Your task to perform on an android device: Open my contact list Image 0: 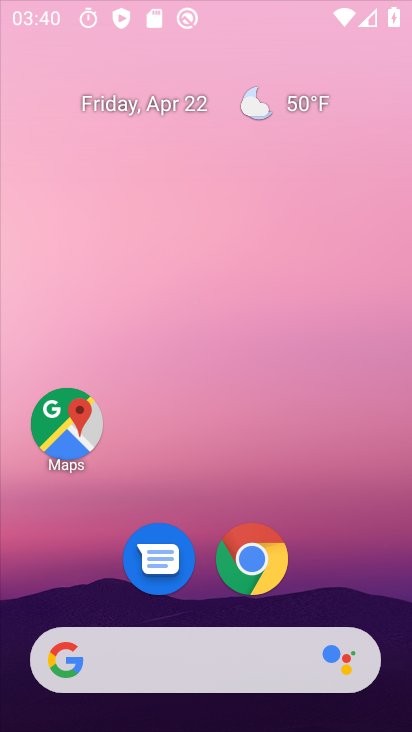
Step 0: click (301, 100)
Your task to perform on an android device: Open my contact list Image 1: 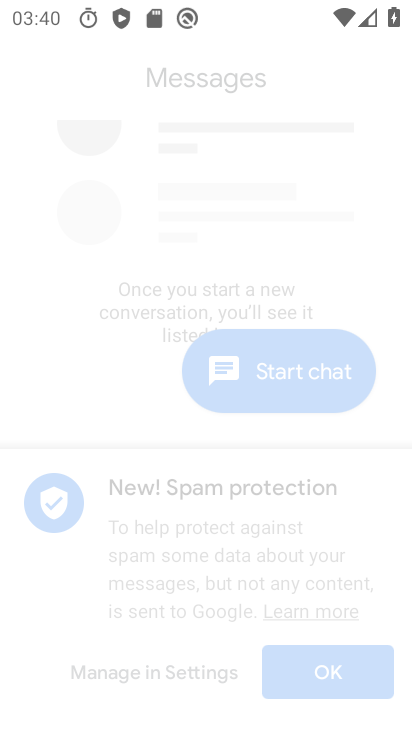
Step 1: drag from (202, 569) to (337, 97)
Your task to perform on an android device: Open my contact list Image 2: 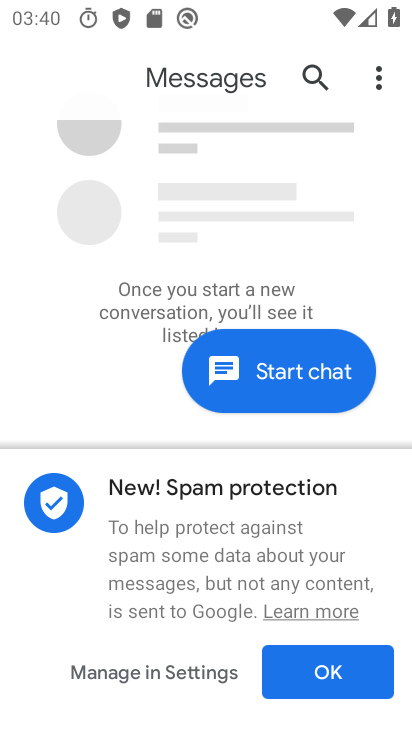
Step 2: press back button
Your task to perform on an android device: Open my contact list Image 3: 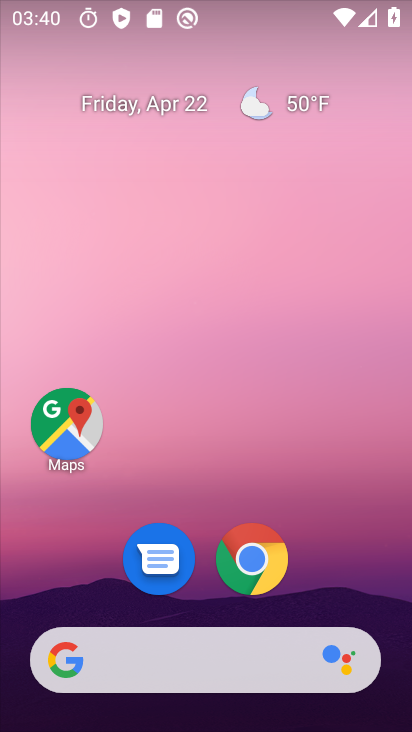
Step 3: drag from (160, 621) to (341, 126)
Your task to perform on an android device: Open my contact list Image 4: 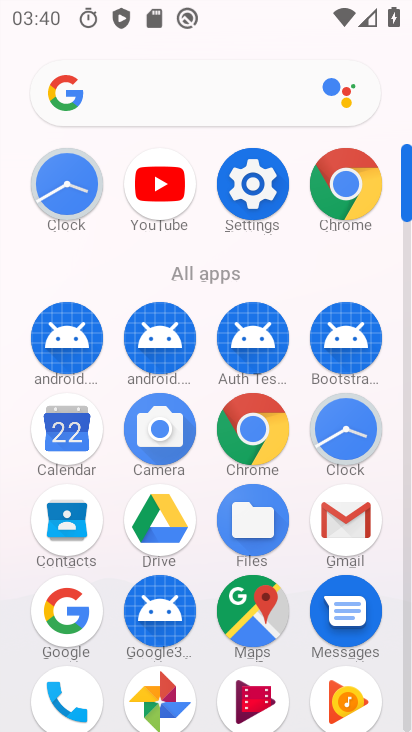
Step 4: click (55, 524)
Your task to perform on an android device: Open my contact list Image 5: 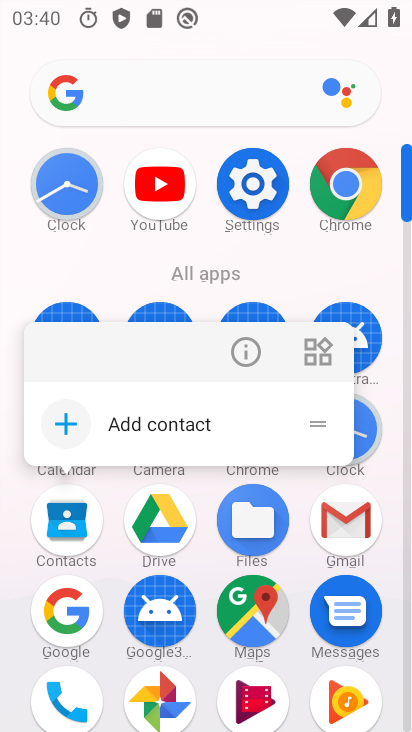
Step 5: click (62, 533)
Your task to perform on an android device: Open my contact list Image 6: 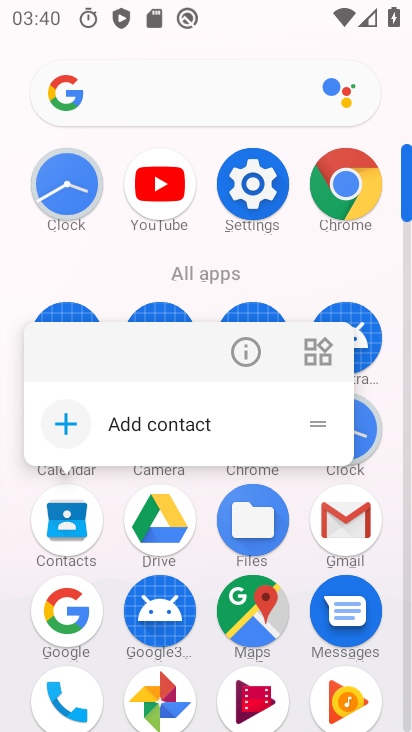
Step 6: click (71, 524)
Your task to perform on an android device: Open my contact list Image 7: 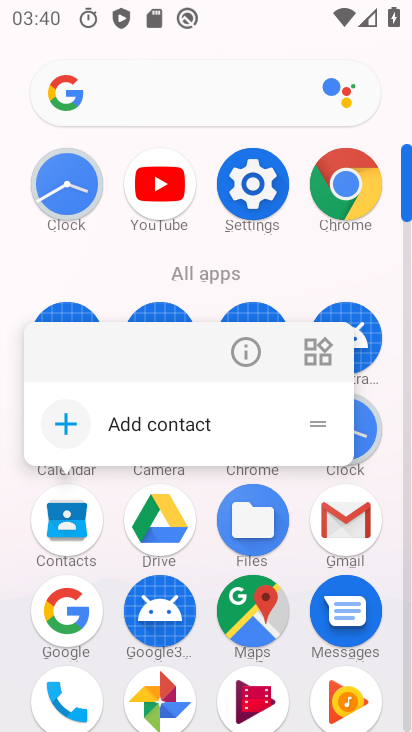
Step 7: click (74, 517)
Your task to perform on an android device: Open my contact list Image 8: 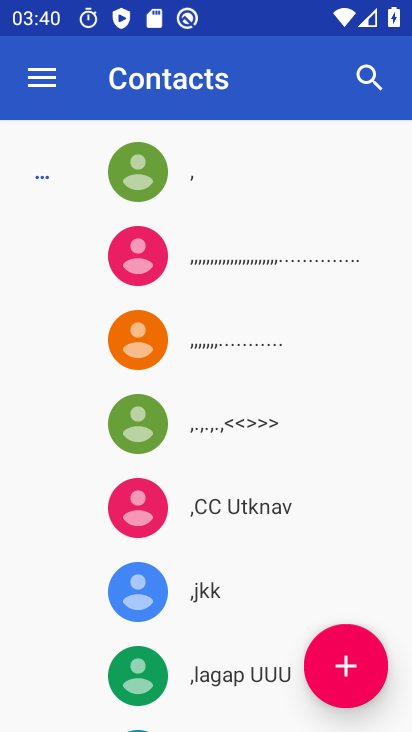
Step 8: task complete